Your task to perform on an android device: What's on my calendar tomorrow? Image 0: 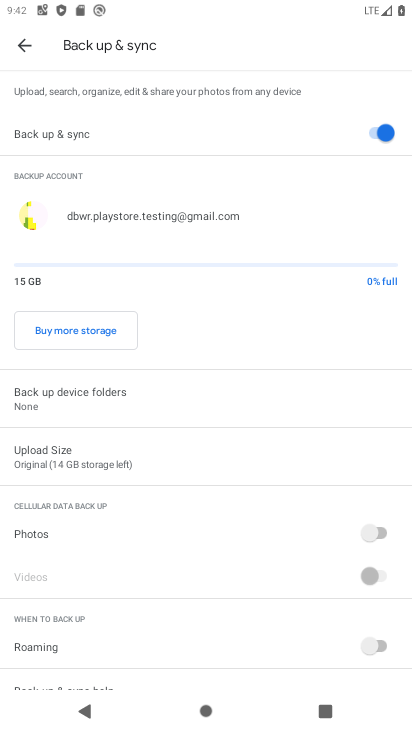
Step 0: press home button
Your task to perform on an android device: What's on my calendar tomorrow? Image 1: 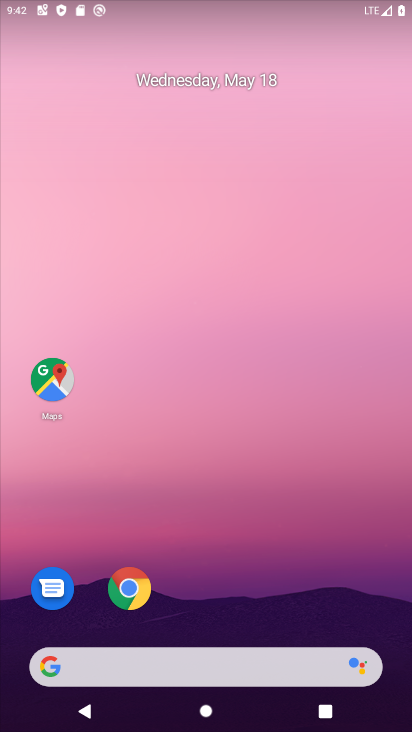
Step 1: drag from (246, 604) to (243, 21)
Your task to perform on an android device: What's on my calendar tomorrow? Image 2: 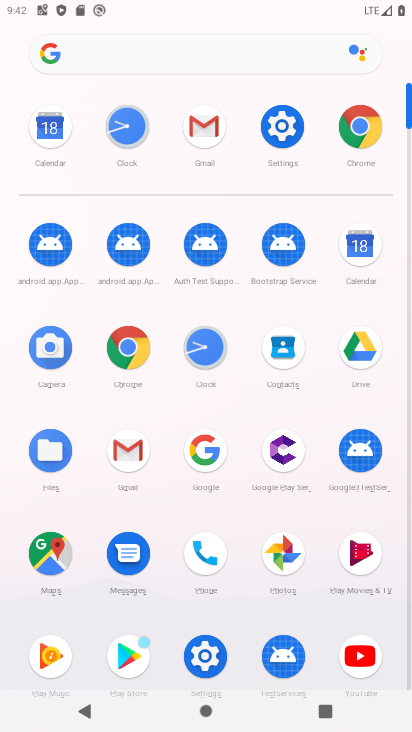
Step 2: click (40, 133)
Your task to perform on an android device: What's on my calendar tomorrow? Image 3: 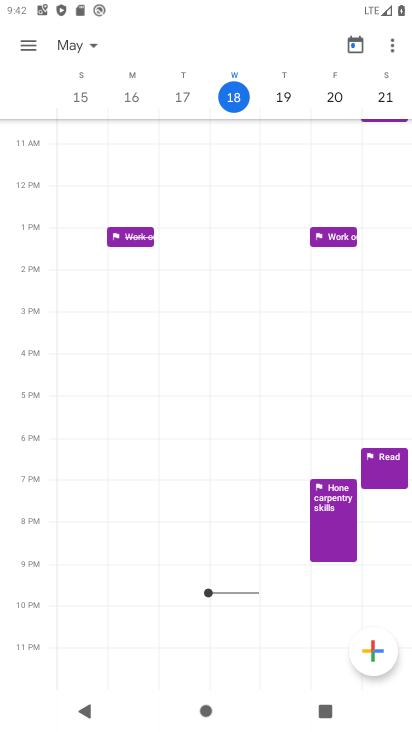
Step 3: click (27, 41)
Your task to perform on an android device: What's on my calendar tomorrow? Image 4: 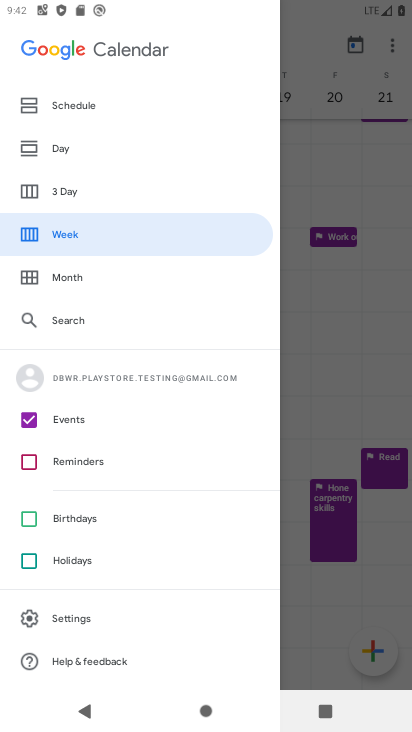
Step 4: click (67, 113)
Your task to perform on an android device: What's on my calendar tomorrow? Image 5: 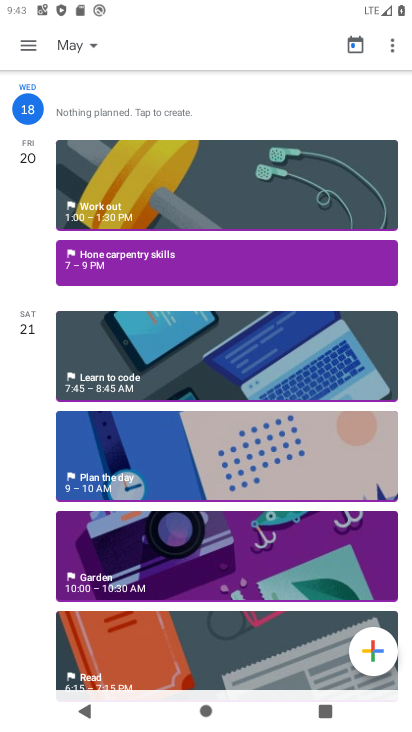
Step 5: click (96, 48)
Your task to perform on an android device: What's on my calendar tomorrow? Image 6: 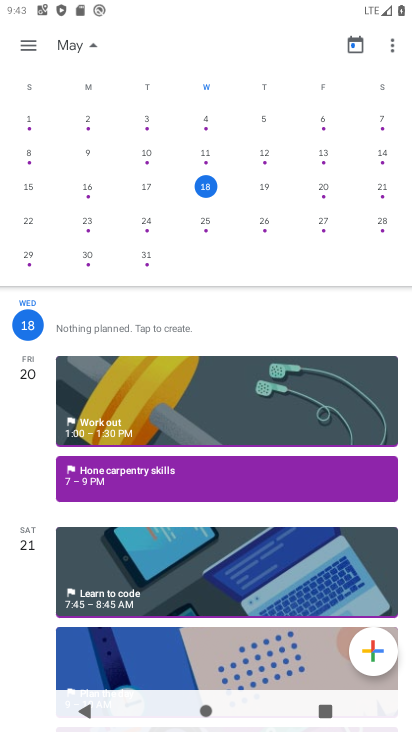
Step 6: click (263, 182)
Your task to perform on an android device: What's on my calendar tomorrow? Image 7: 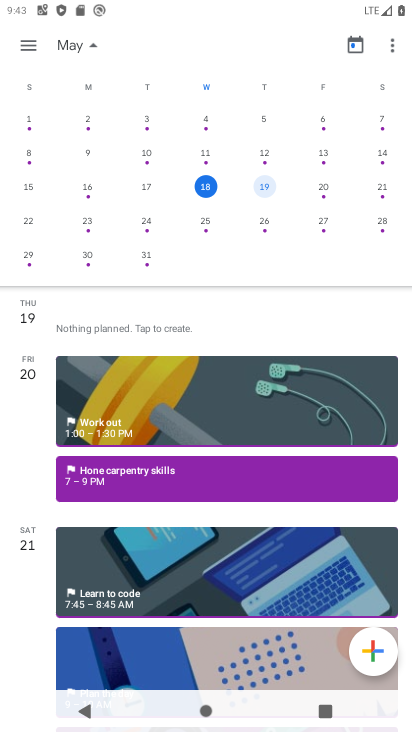
Step 7: click (105, 326)
Your task to perform on an android device: What's on my calendar tomorrow? Image 8: 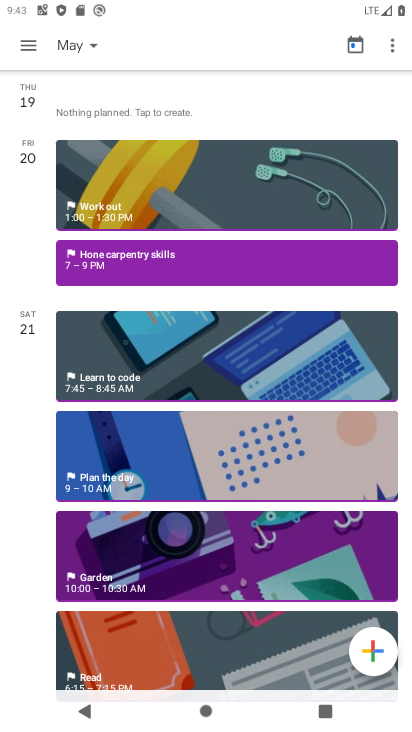
Step 8: click (85, 119)
Your task to perform on an android device: What's on my calendar tomorrow? Image 9: 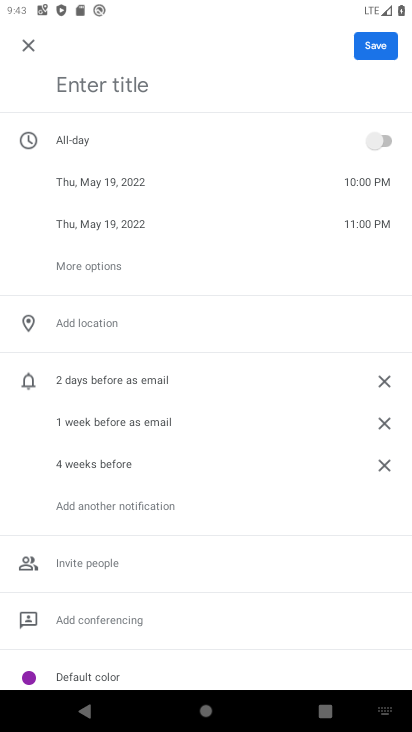
Step 9: task complete